Your task to perform on an android device: show emergency info Image 0: 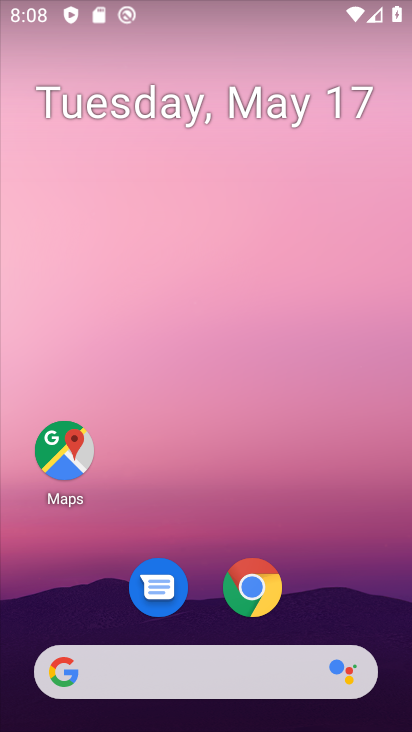
Step 0: drag from (12, 638) to (251, 132)
Your task to perform on an android device: show emergency info Image 1: 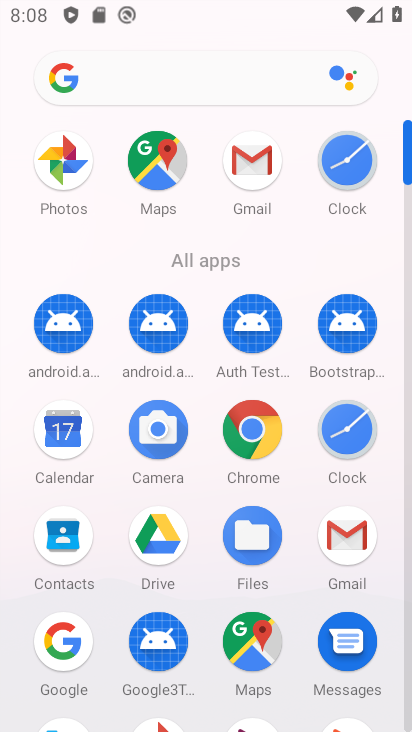
Step 1: drag from (58, 482) to (236, 129)
Your task to perform on an android device: show emergency info Image 2: 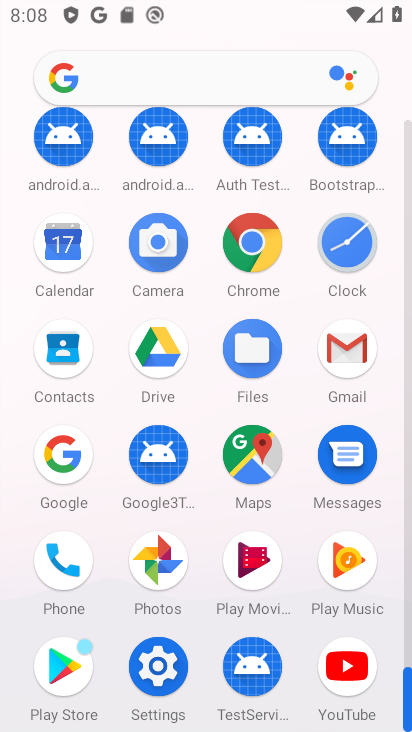
Step 2: click (151, 661)
Your task to perform on an android device: show emergency info Image 3: 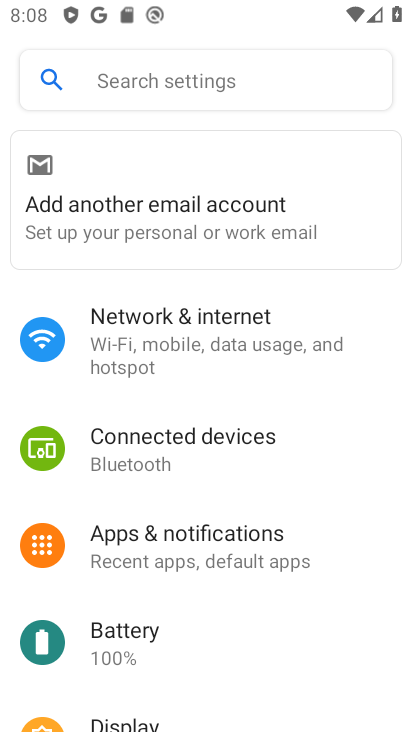
Step 3: drag from (41, 415) to (220, 139)
Your task to perform on an android device: show emergency info Image 4: 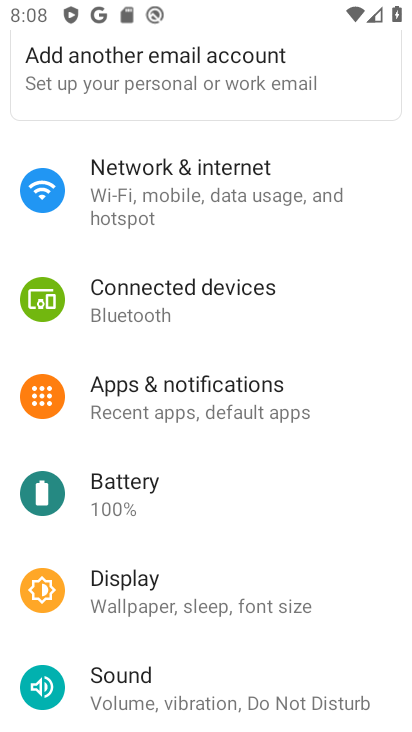
Step 4: drag from (6, 676) to (294, 193)
Your task to perform on an android device: show emergency info Image 5: 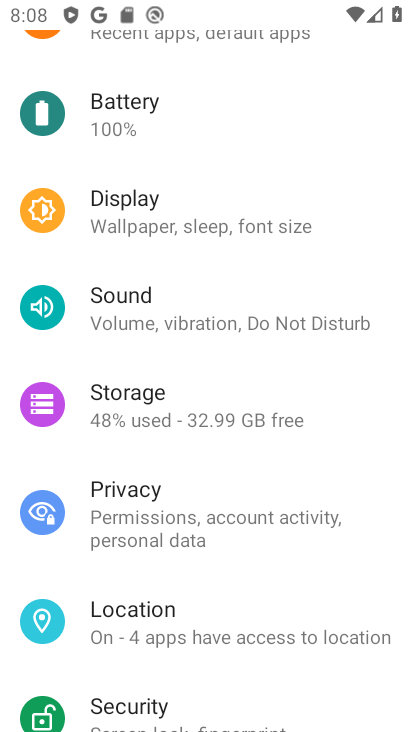
Step 5: drag from (27, 670) to (321, 255)
Your task to perform on an android device: show emergency info Image 6: 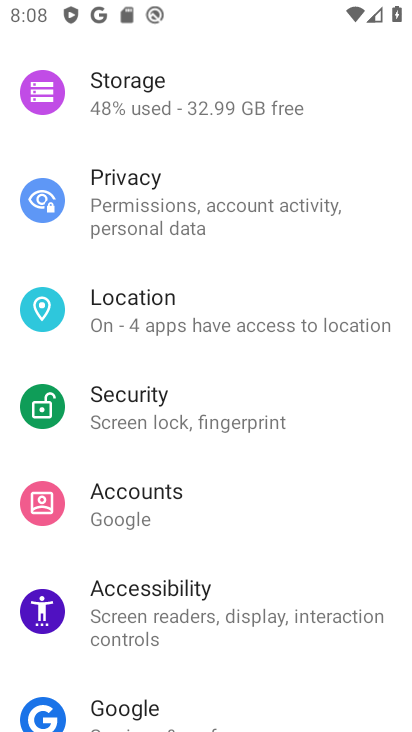
Step 6: drag from (35, 568) to (265, 222)
Your task to perform on an android device: show emergency info Image 7: 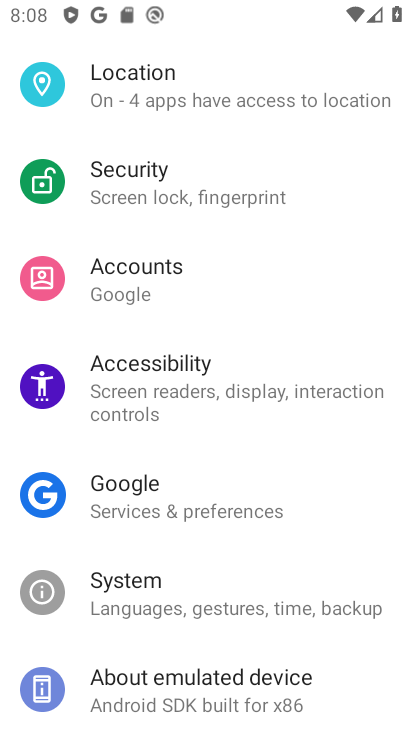
Step 7: drag from (17, 606) to (238, 240)
Your task to perform on an android device: show emergency info Image 8: 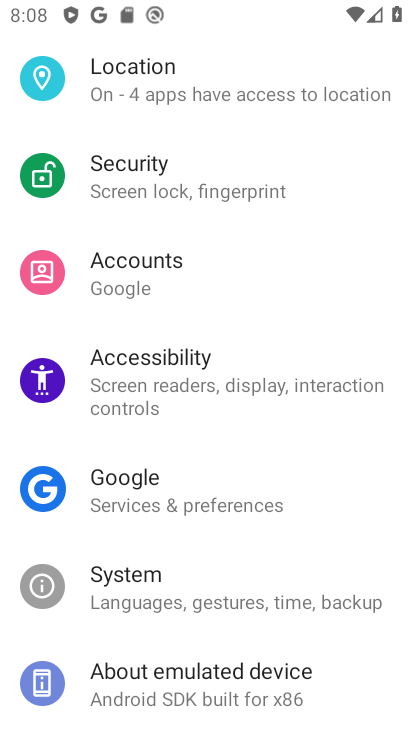
Step 8: click (191, 687)
Your task to perform on an android device: show emergency info Image 9: 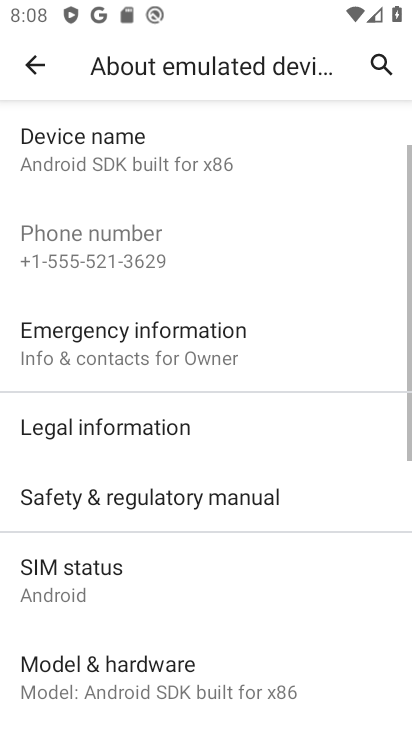
Step 9: click (224, 347)
Your task to perform on an android device: show emergency info Image 10: 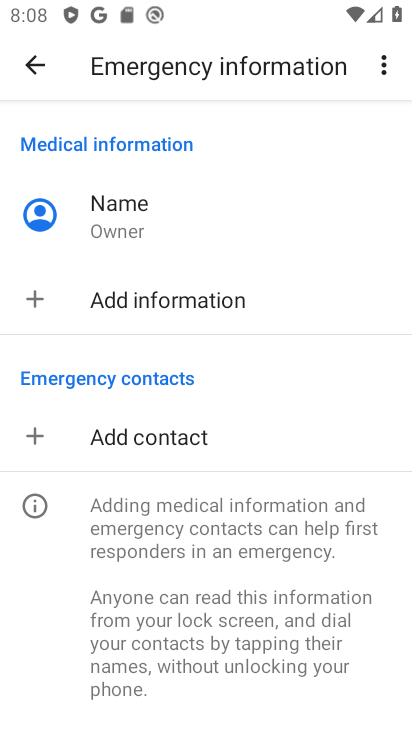
Step 10: task complete